Your task to perform on an android device: Open Google Chrome and click the shortcut for Amazon.com Image 0: 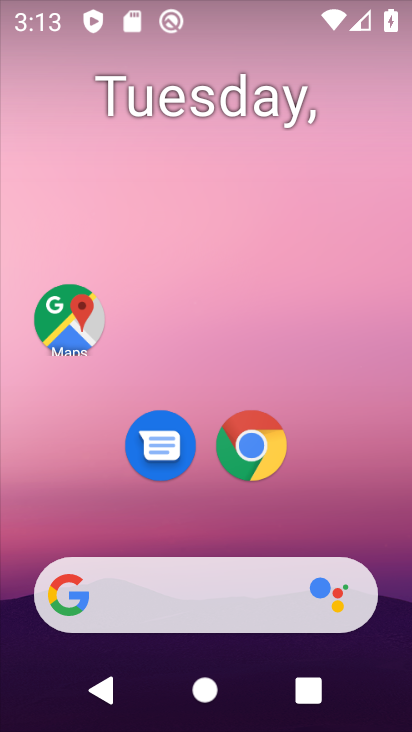
Step 0: click (275, 455)
Your task to perform on an android device: Open Google Chrome and click the shortcut for Amazon.com Image 1: 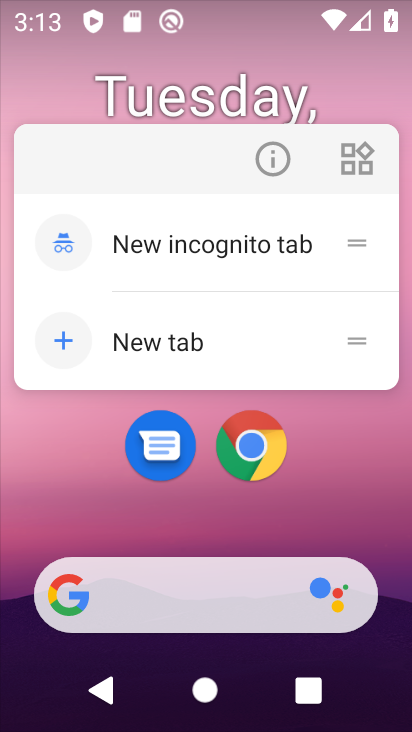
Step 1: click (258, 452)
Your task to perform on an android device: Open Google Chrome and click the shortcut for Amazon.com Image 2: 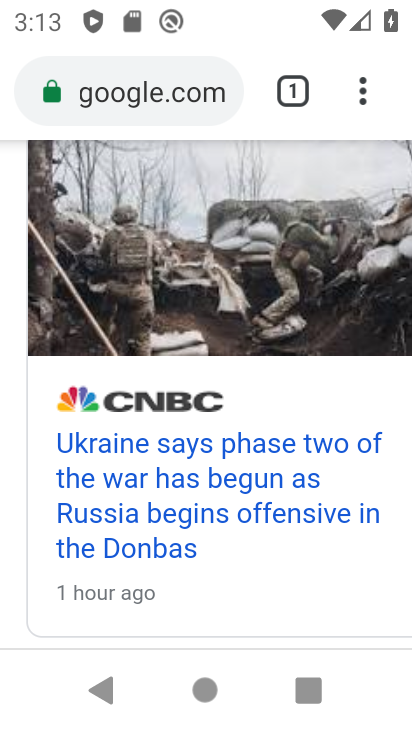
Step 2: click (354, 93)
Your task to perform on an android device: Open Google Chrome and click the shortcut for Amazon.com Image 3: 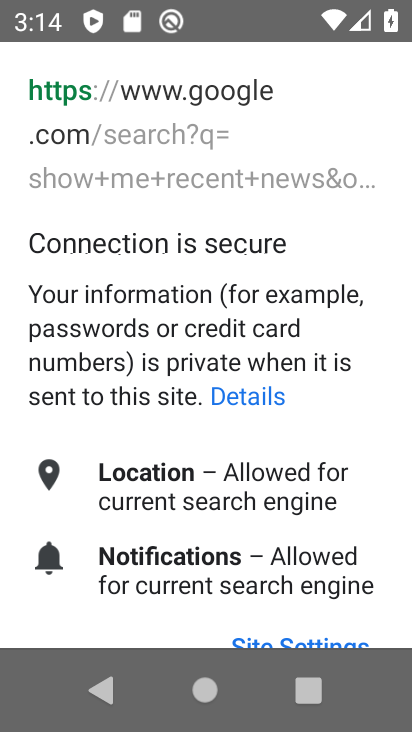
Step 3: press back button
Your task to perform on an android device: Open Google Chrome and click the shortcut for Amazon.com Image 4: 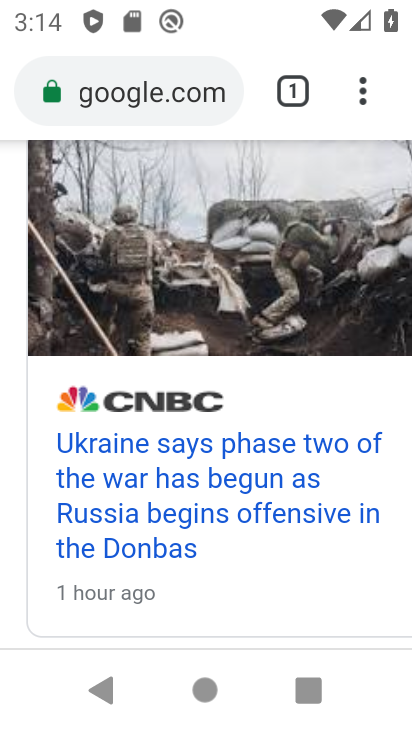
Step 4: drag from (364, 97) to (169, 195)
Your task to perform on an android device: Open Google Chrome and click the shortcut for Amazon.com Image 5: 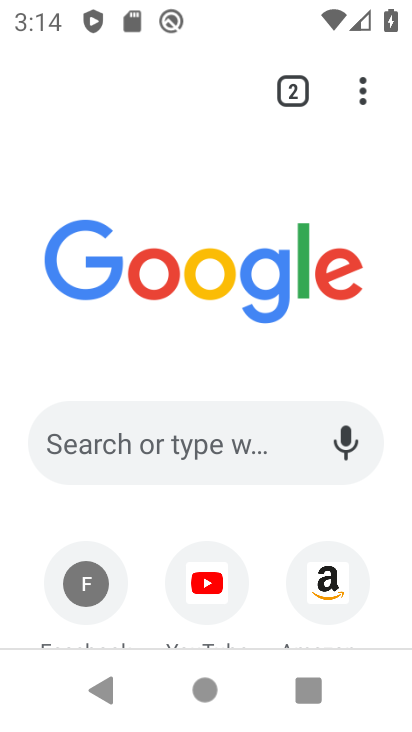
Step 5: click (333, 578)
Your task to perform on an android device: Open Google Chrome and click the shortcut for Amazon.com Image 6: 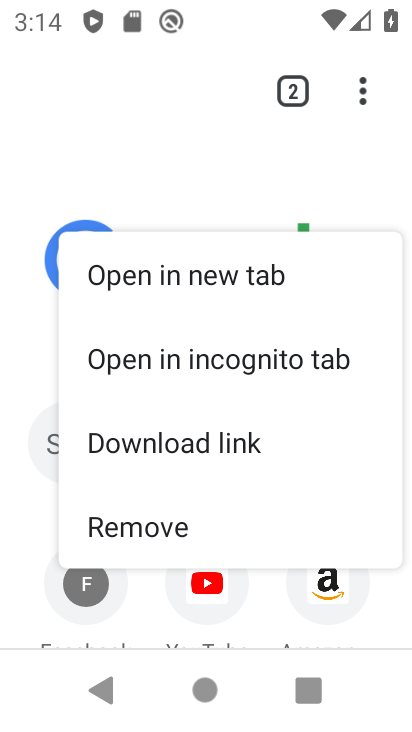
Step 6: click (328, 599)
Your task to perform on an android device: Open Google Chrome and click the shortcut for Amazon.com Image 7: 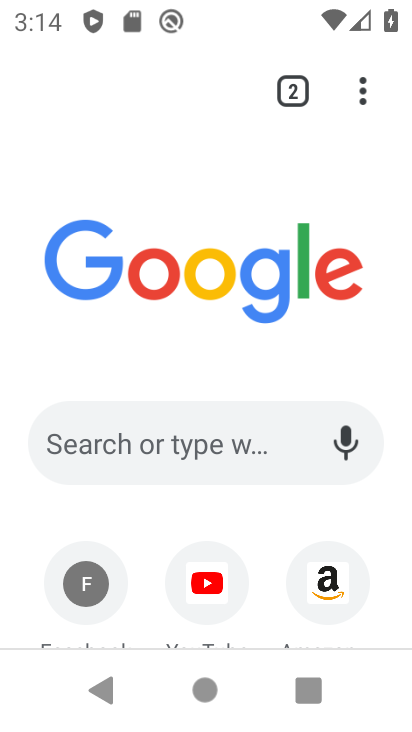
Step 7: click (327, 582)
Your task to perform on an android device: Open Google Chrome and click the shortcut for Amazon.com Image 8: 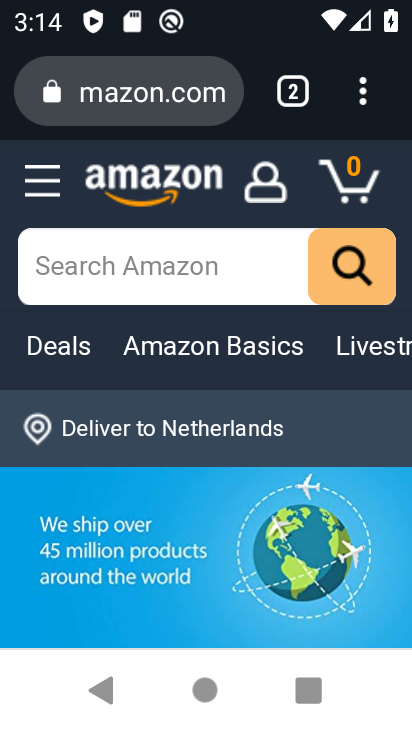
Step 8: task complete